Your task to perform on an android device: open sync settings in chrome Image 0: 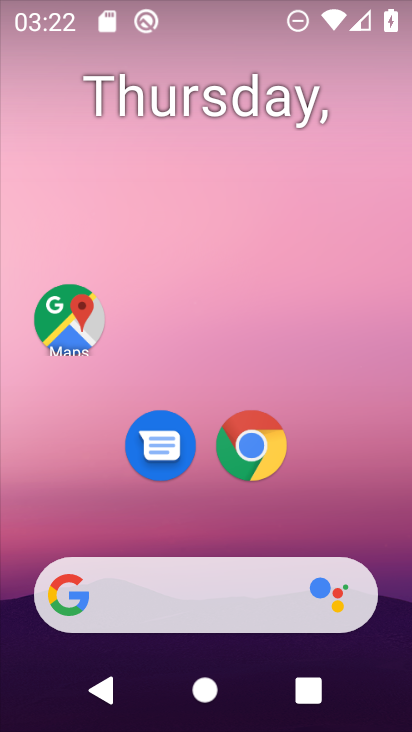
Step 0: click (254, 454)
Your task to perform on an android device: open sync settings in chrome Image 1: 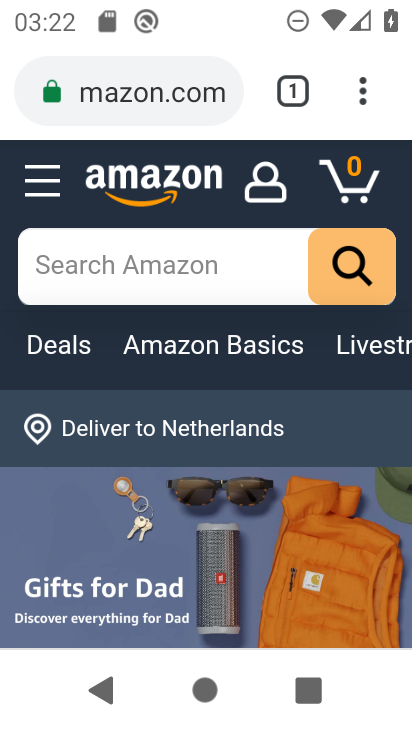
Step 1: click (365, 99)
Your task to perform on an android device: open sync settings in chrome Image 2: 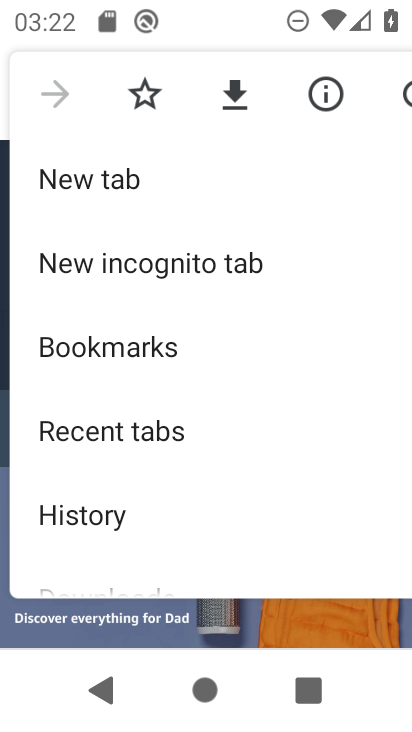
Step 2: drag from (197, 496) to (194, 116)
Your task to perform on an android device: open sync settings in chrome Image 3: 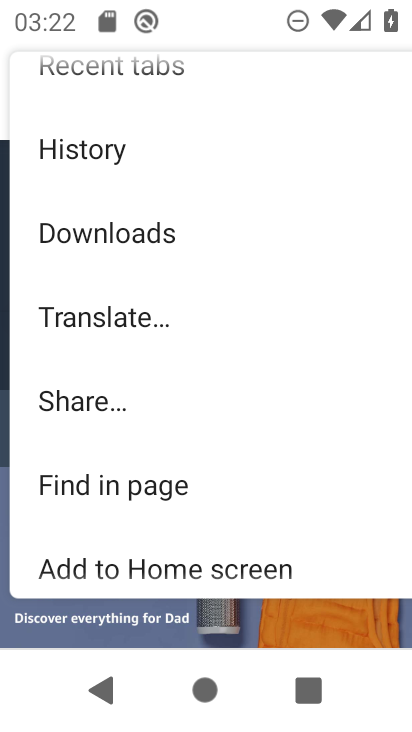
Step 3: drag from (254, 516) to (260, 92)
Your task to perform on an android device: open sync settings in chrome Image 4: 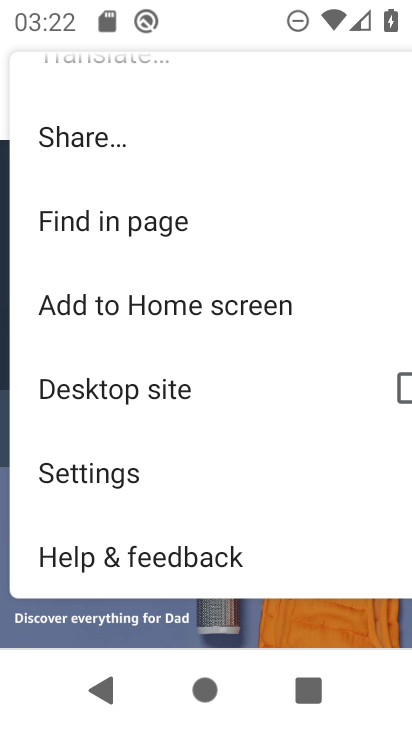
Step 4: click (90, 476)
Your task to perform on an android device: open sync settings in chrome Image 5: 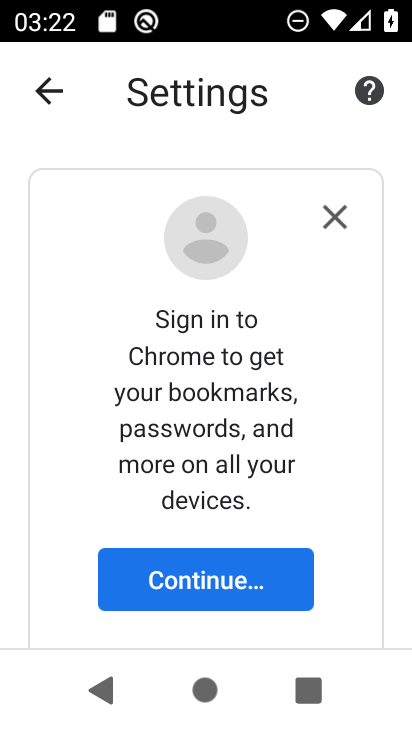
Step 5: drag from (353, 566) to (360, 347)
Your task to perform on an android device: open sync settings in chrome Image 6: 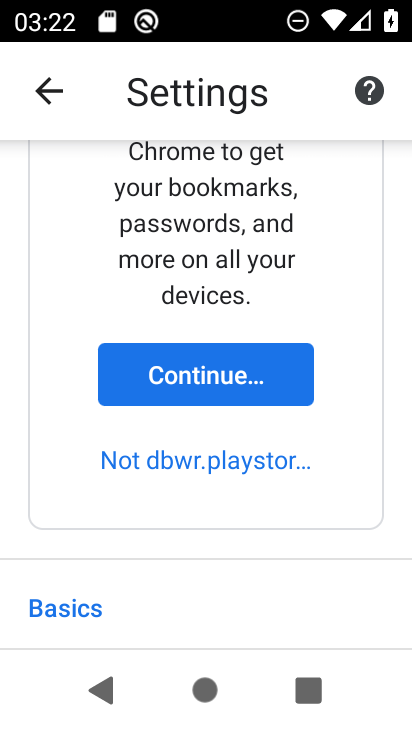
Step 6: click (187, 369)
Your task to perform on an android device: open sync settings in chrome Image 7: 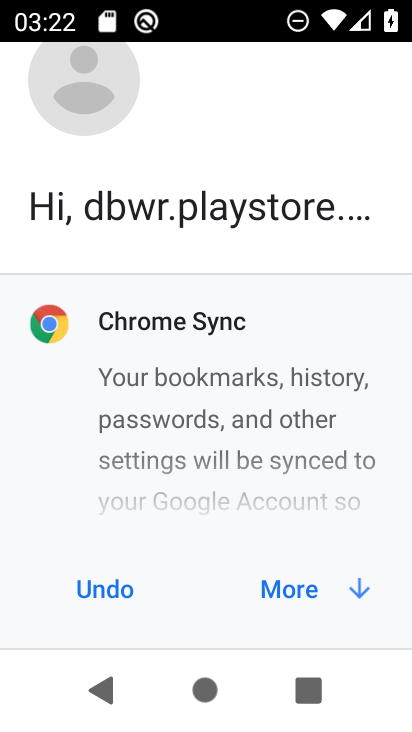
Step 7: click (271, 591)
Your task to perform on an android device: open sync settings in chrome Image 8: 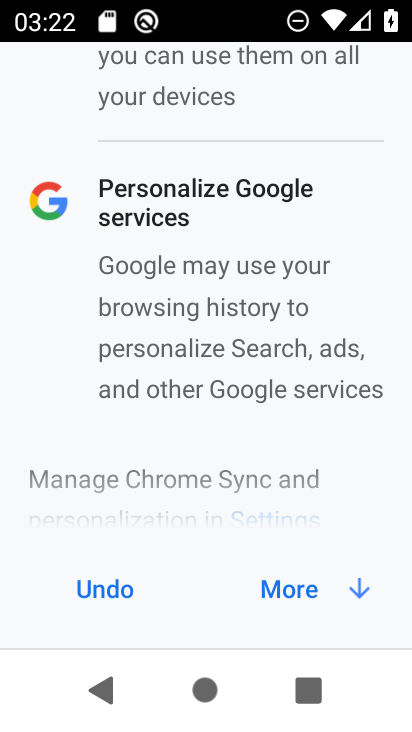
Step 8: click (271, 591)
Your task to perform on an android device: open sync settings in chrome Image 9: 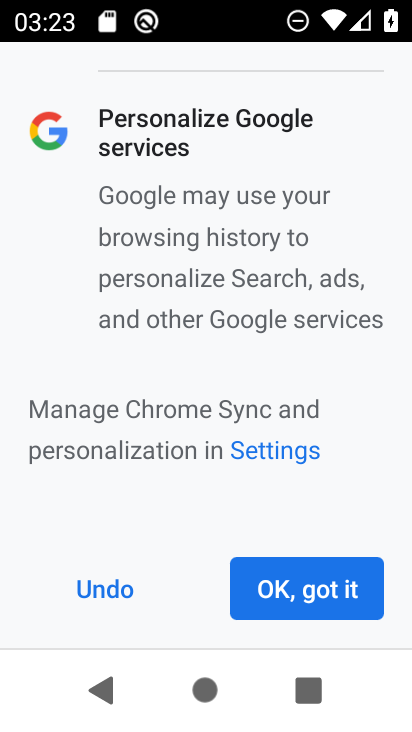
Step 9: click (271, 591)
Your task to perform on an android device: open sync settings in chrome Image 10: 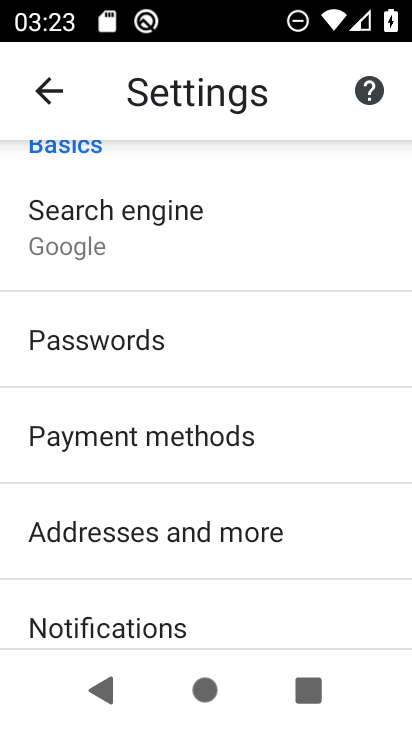
Step 10: drag from (138, 322) to (131, 727)
Your task to perform on an android device: open sync settings in chrome Image 11: 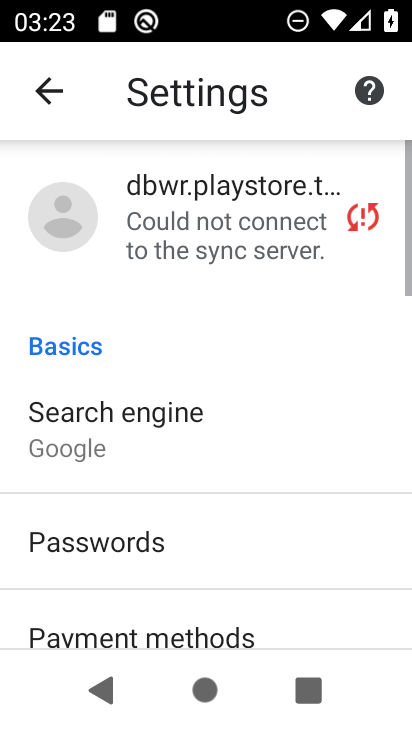
Step 11: click (204, 243)
Your task to perform on an android device: open sync settings in chrome Image 12: 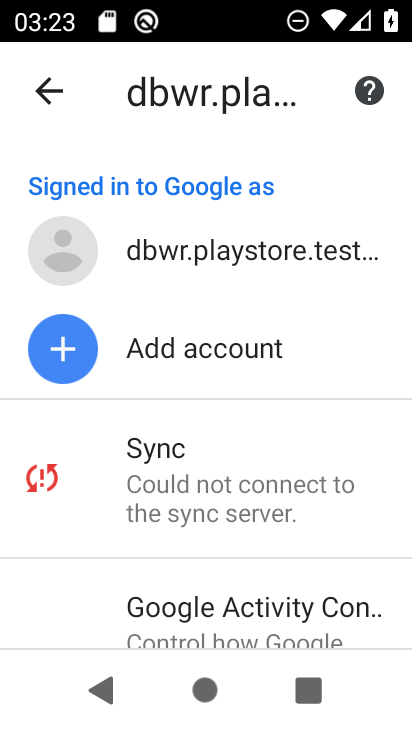
Step 12: click (163, 495)
Your task to perform on an android device: open sync settings in chrome Image 13: 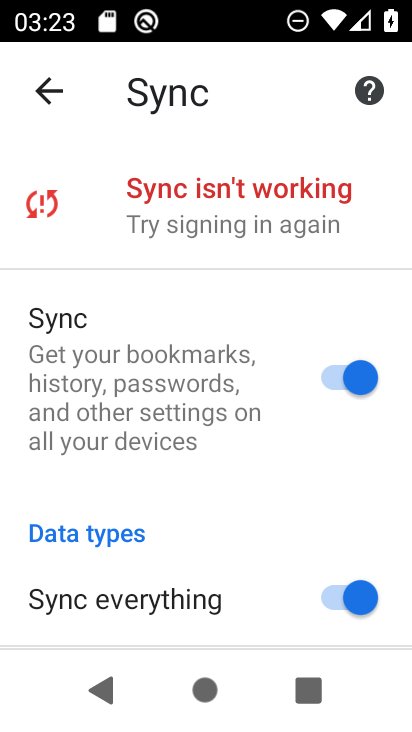
Step 13: task complete